Your task to perform on an android device: Go to Amazon Image 0: 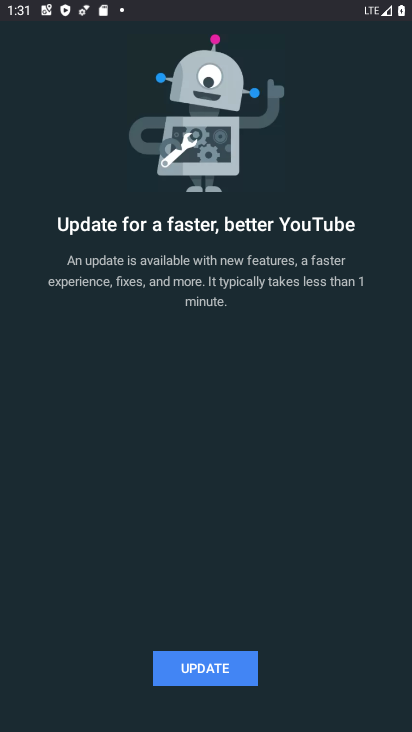
Step 0: press back button
Your task to perform on an android device: Go to Amazon Image 1: 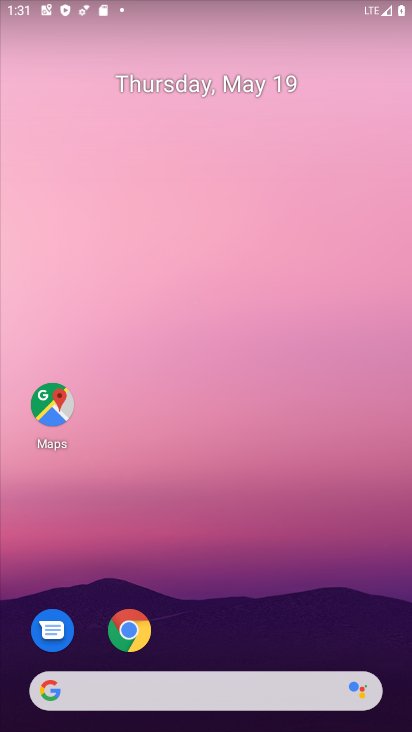
Step 1: click (122, 631)
Your task to perform on an android device: Go to Amazon Image 2: 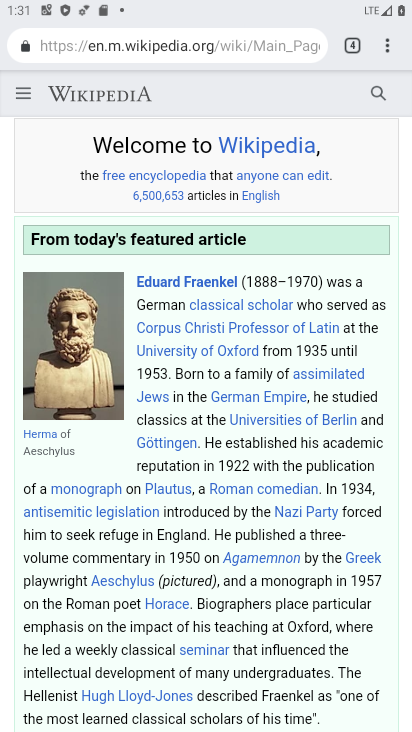
Step 2: click (349, 37)
Your task to perform on an android device: Go to Amazon Image 3: 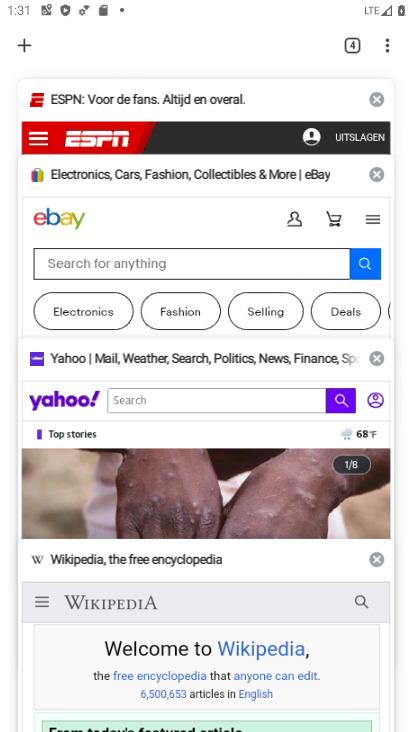
Step 3: click (18, 43)
Your task to perform on an android device: Go to Amazon Image 4: 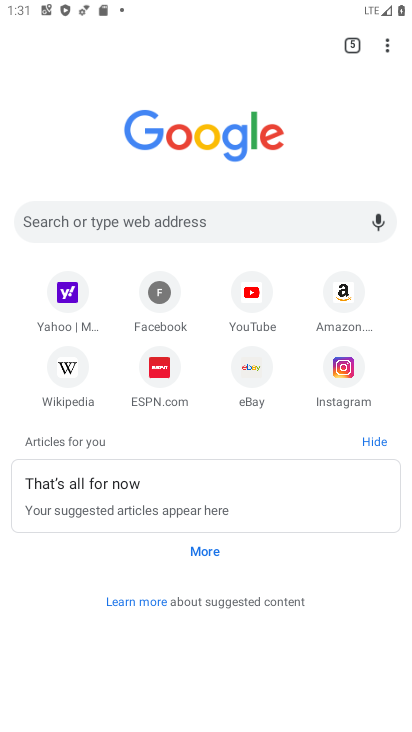
Step 4: click (336, 289)
Your task to perform on an android device: Go to Amazon Image 5: 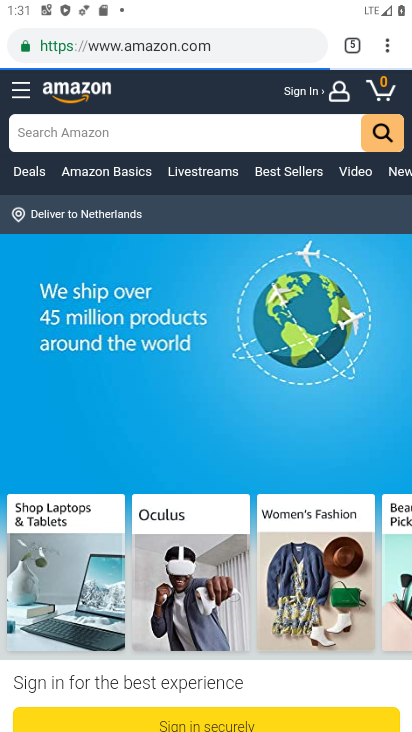
Step 5: task complete